Your task to perform on an android device: Do I have any events tomorrow? Image 0: 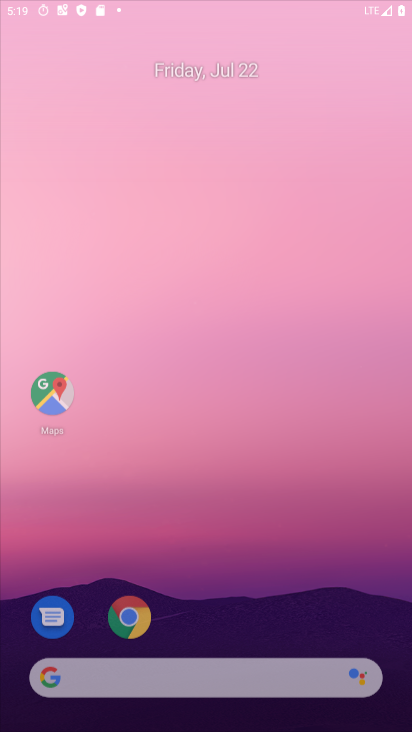
Step 0: drag from (132, 275) to (152, 33)
Your task to perform on an android device: Do I have any events tomorrow? Image 1: 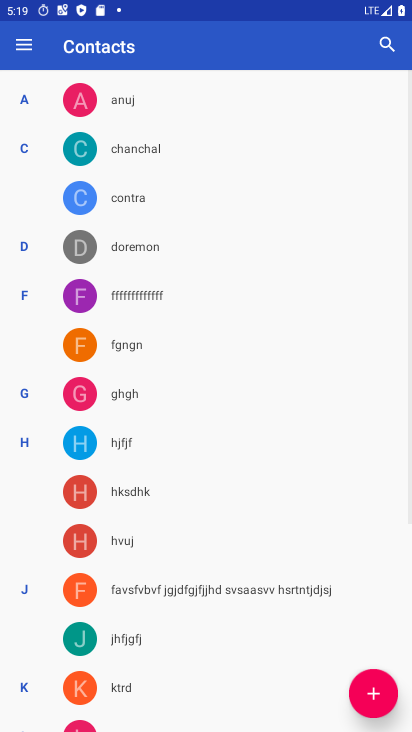
Step 1: press home button
Your task to perform on an android device: Do I have any events tomorrow? Image 2: 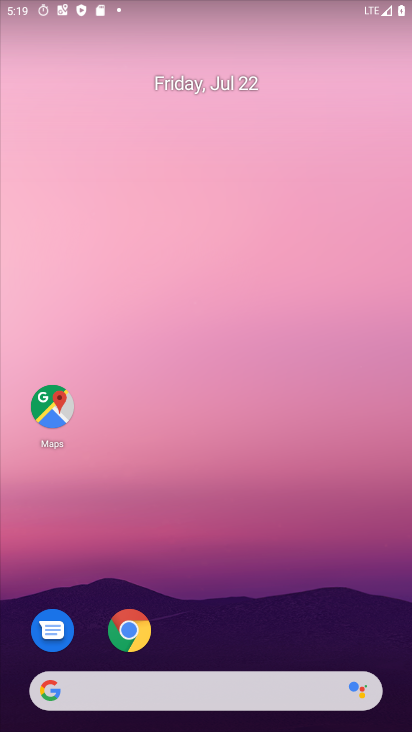
Step 2: drag from (121, 687) to (120, 5)
Your task to perform on an android device: Do I have any events tomorrow? Image 3: 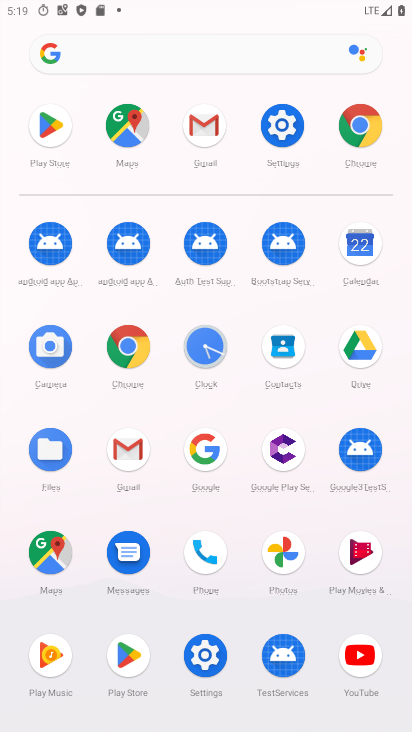
Step 3: click (360, 249)
Your task to perform on an android device: Do I have any events tomorrow? Image 4: 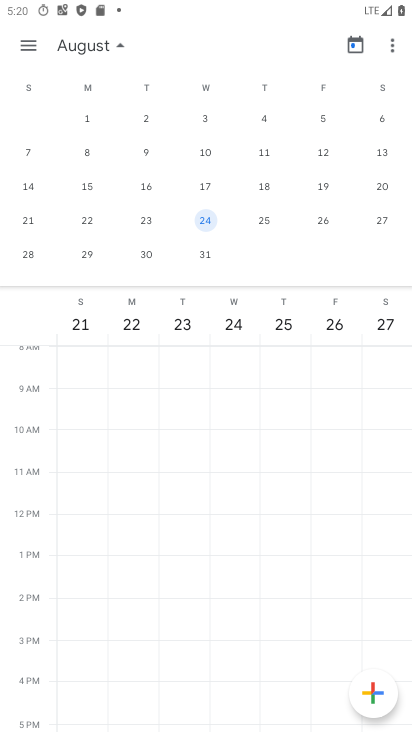
Step 4: press home button
Your task to perform on an android device: Do I have any events tomorrow? Image 5: 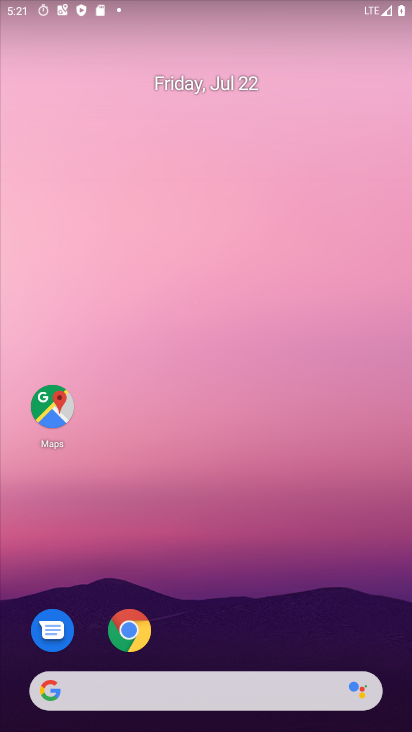
Step 5: drag from (222, 694) to (279, 29)
Your task to perform on an android device: Do I have any events tomorrow? Image 6: 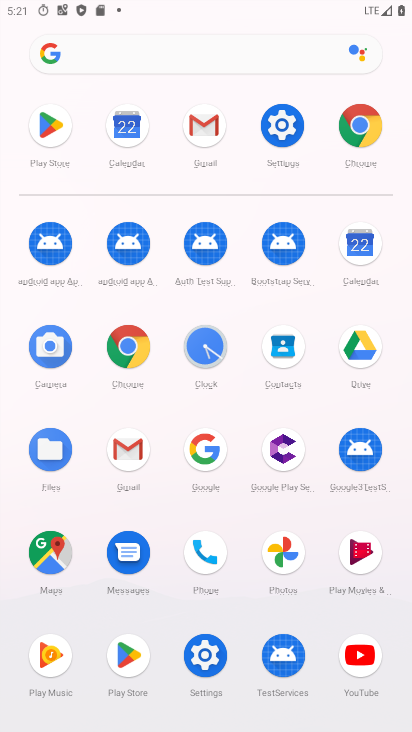
Step 6: click (359, 253)
Your task to perform on an android device: Do I have any events tomorrow? Image 7: 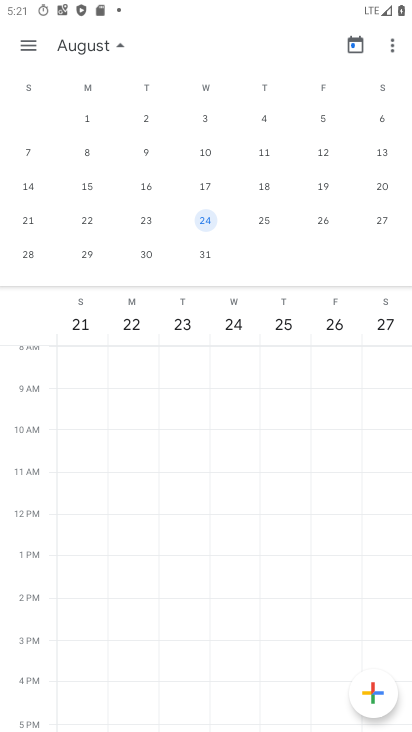
Step 7: drag from (15, 183) to (378, 156)
Your task to perform on an android device: Do I have any events tomorrow? Image 8: 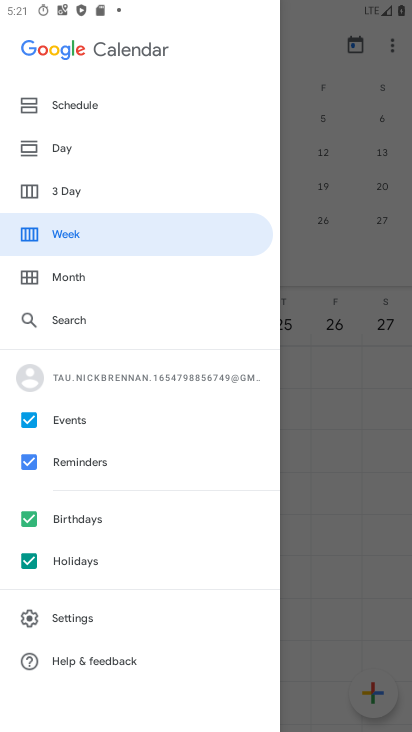
Step 8: click (335, 374)
Your task to perform on an android device: Do I have any events tomorrow? Image 9: 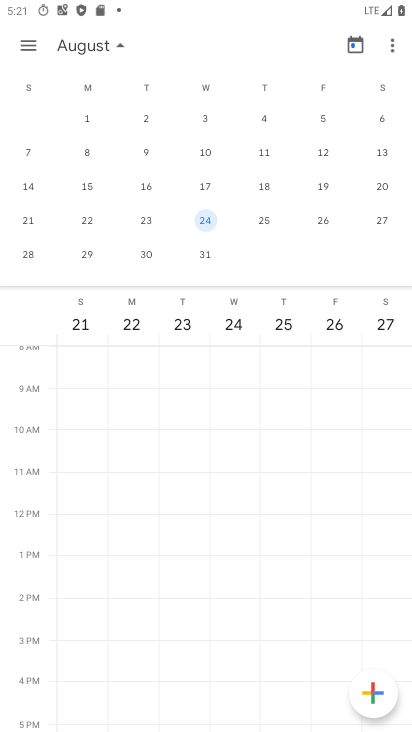
Step 9: drag from (40, 202) to (410, 262)
Your task to perform on an android device: Do I have any events tomorrow? Image 10: 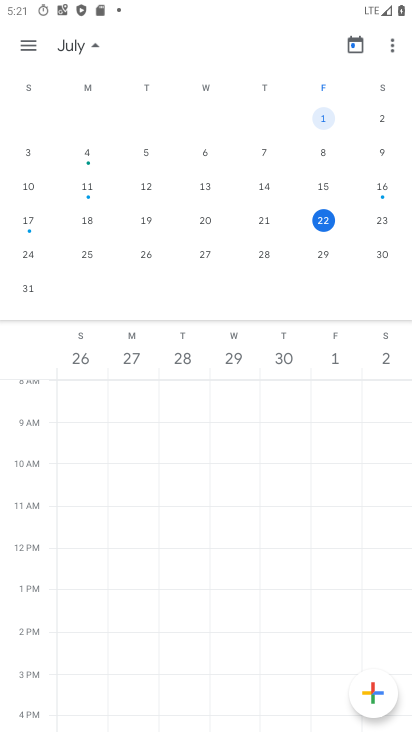
Step 10: click (380, 223)
Your task to perform on an android device: Do I have any events tomorrow? Image 11: 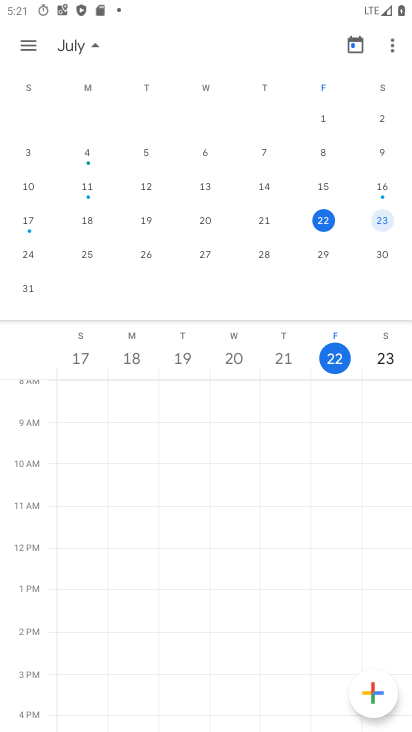
Step 11: task complete